Your task to perform on an android device: Open network settings Image 0: 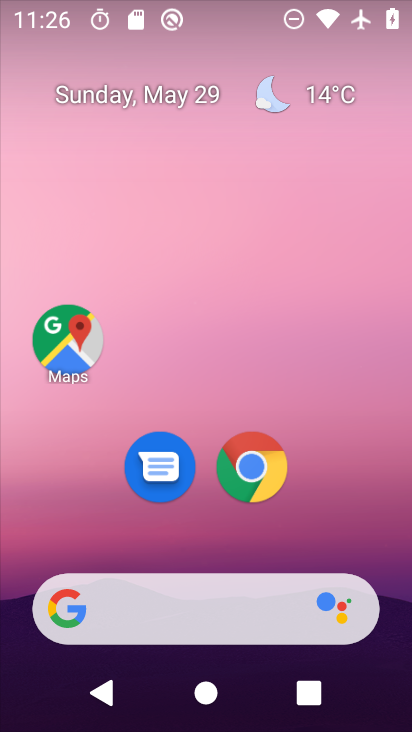
Step 0: drag from (208, 543) to (209, 86)
Your task to perform on an android device: Open network settings Image 1: 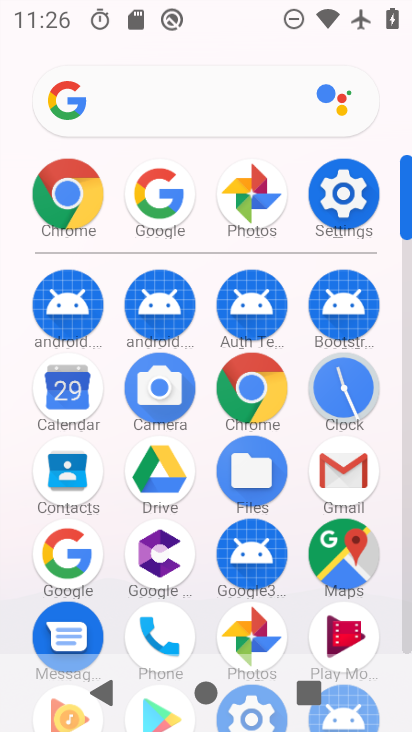
Step 1: click (329, 218)
Your task to perform on an android device: Open network settings Image 2: 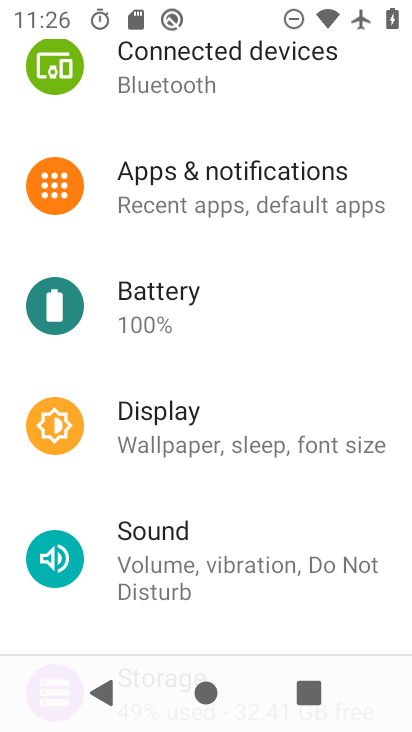
Step 2: drag from (222, 162) to (263, 622)
Your task to perform on an android device: Open network settings Image 3: 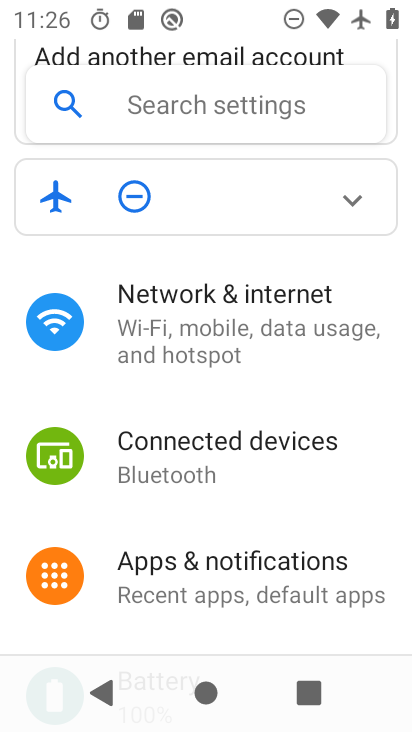
Step 3: click (220, 315)
Your task to perform on an android device: Open network settings Image 4: 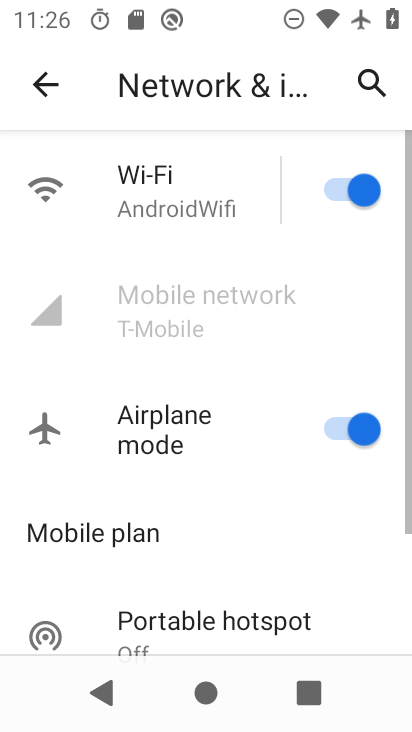
Step 4: click (220, 315)
Your task to perform on an android device: Open network settings Image 5: 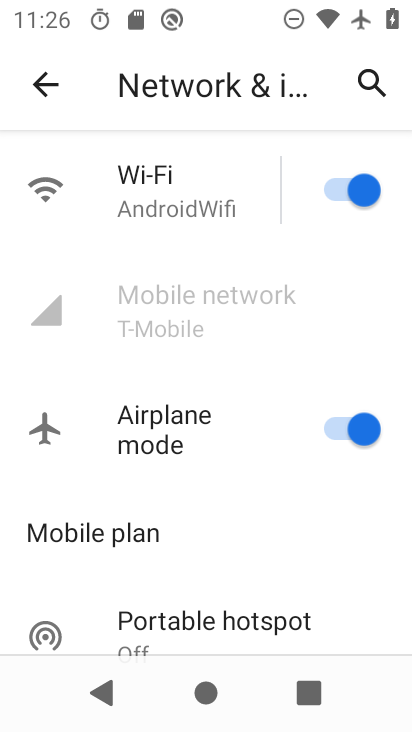
Step 5: task complete